Your task to perform on an android device: remove spam from my inbox in the gmail app Image 0: 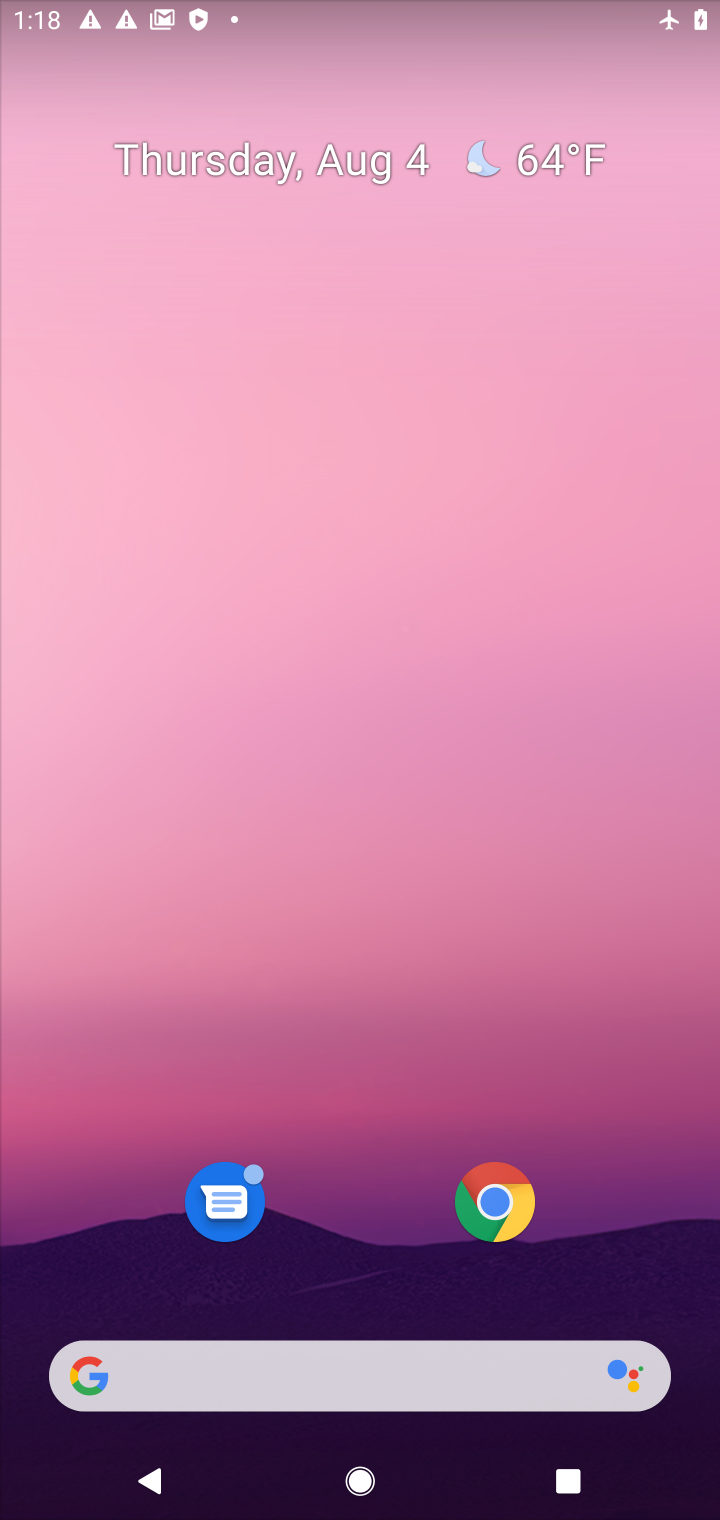
Step 0: drag from (621, 1286) to (663, 9)
Your task to perform on an android device: remove spam from my inbox in the gmail app Image 1: 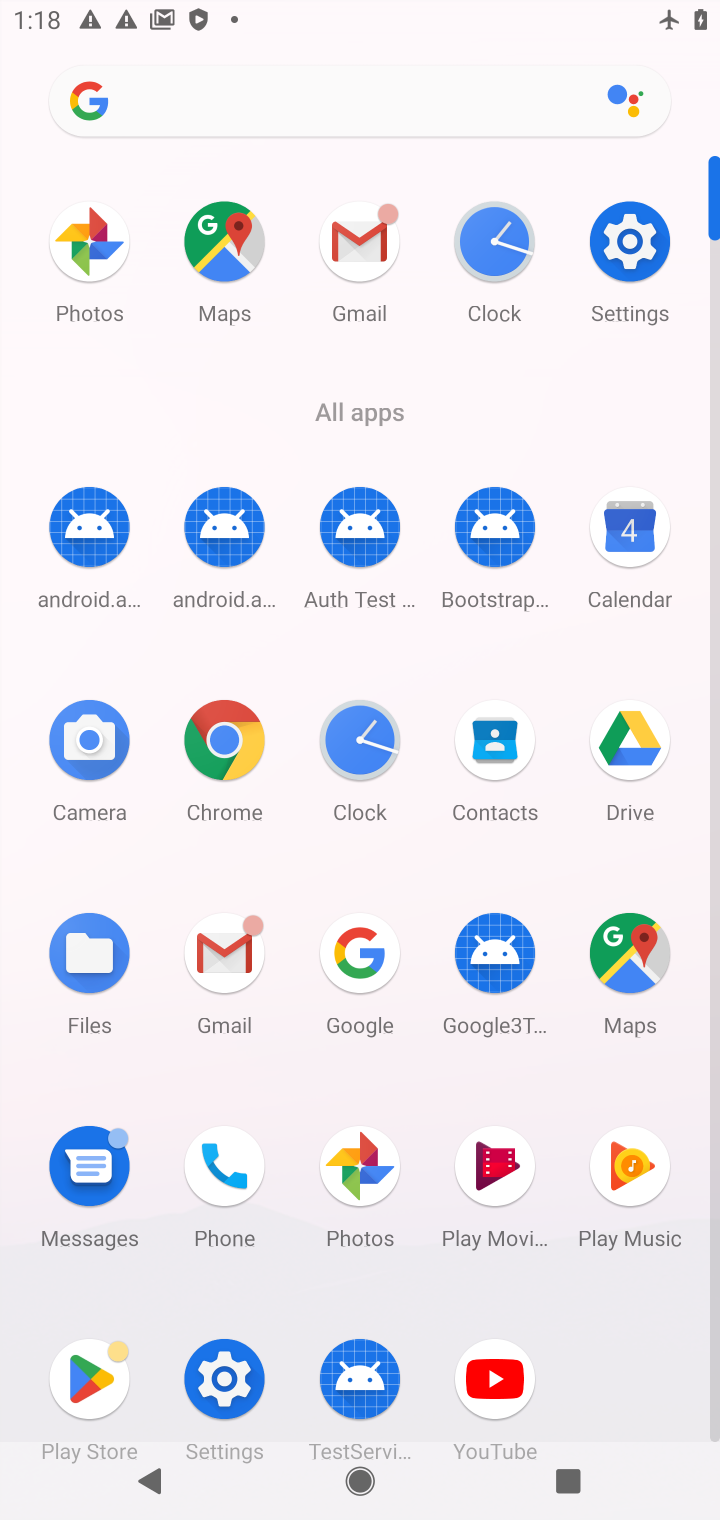
Step 1: click (240, 981)
Your task to perform on an android device: remove spam from my inbox in the gmail app Image 2: 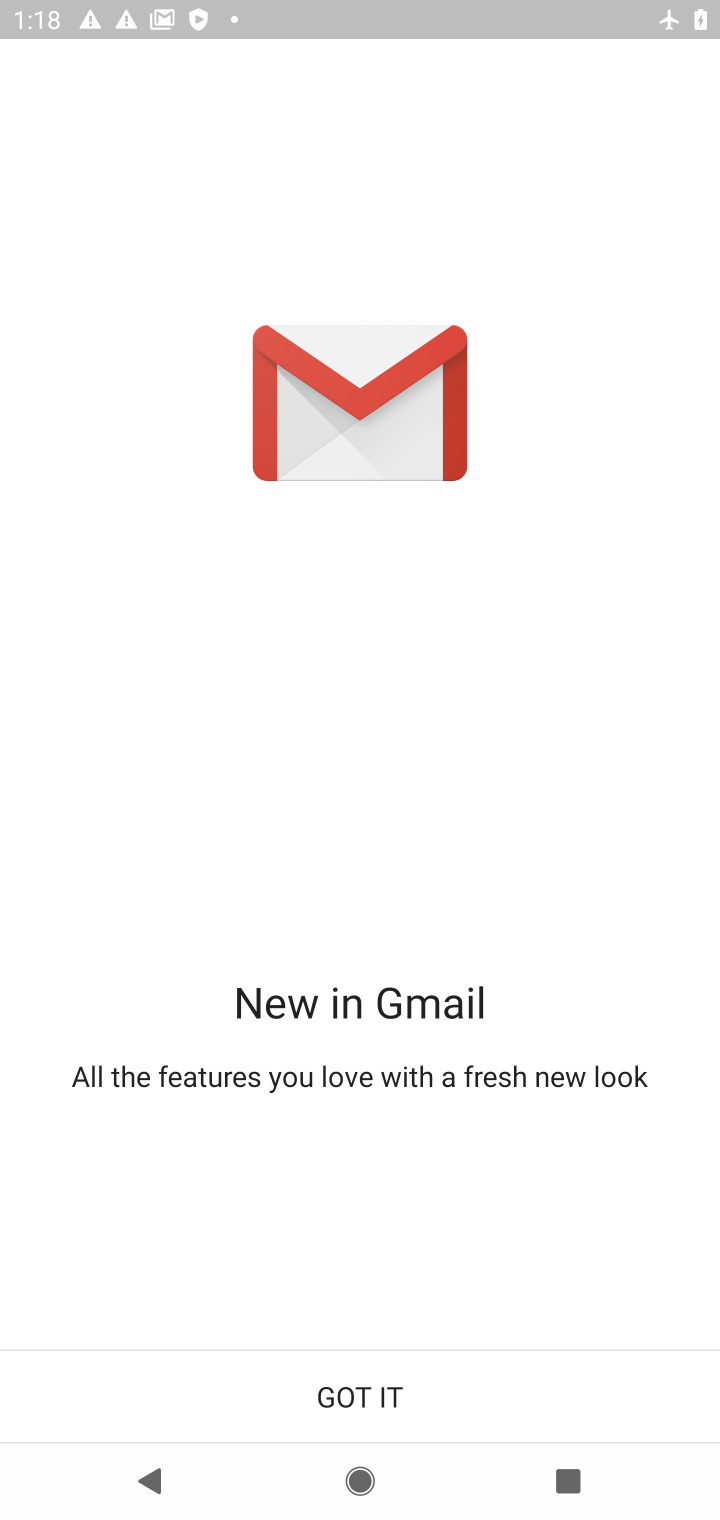
Step 2: click (415, 1373)
Your task to perform on an android device: remove spam from my inbox in the gmail app Image 3: 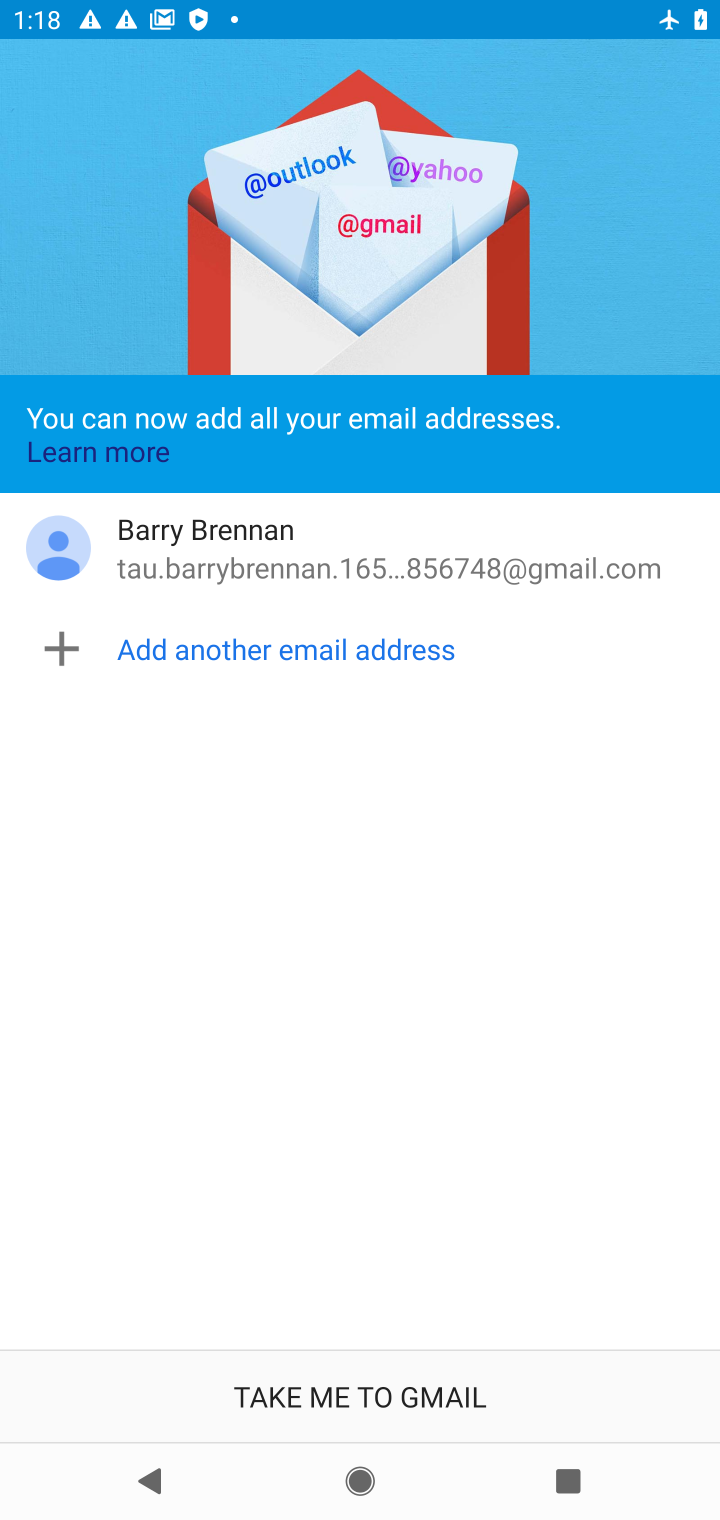
Step 3: click (415, 1373)
Your task to perform on an android device: remove spam from my inbox in the gmail app Image 4: 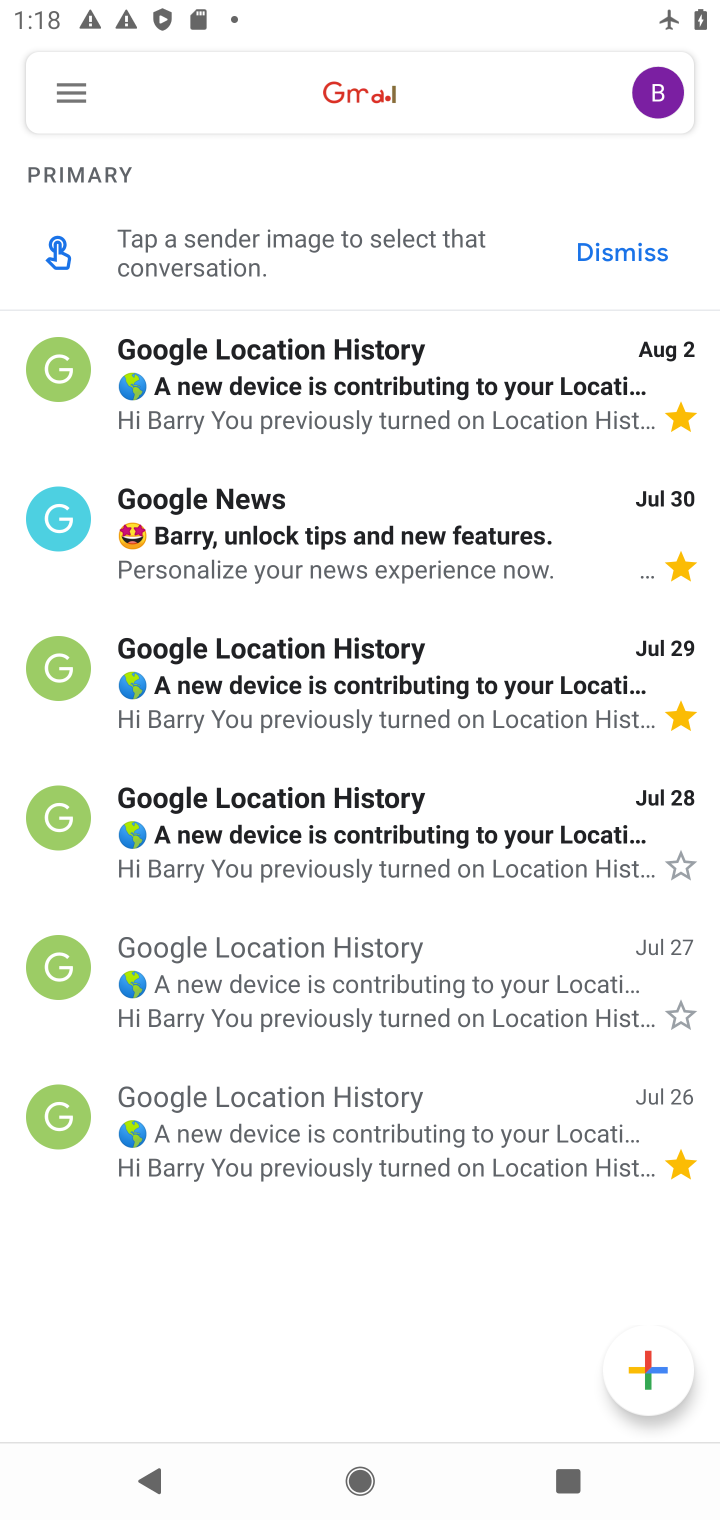
Step 4: click (72, 90)
Your task to perform on an android device: remove spam from my inbox in the gmail app Image 5: 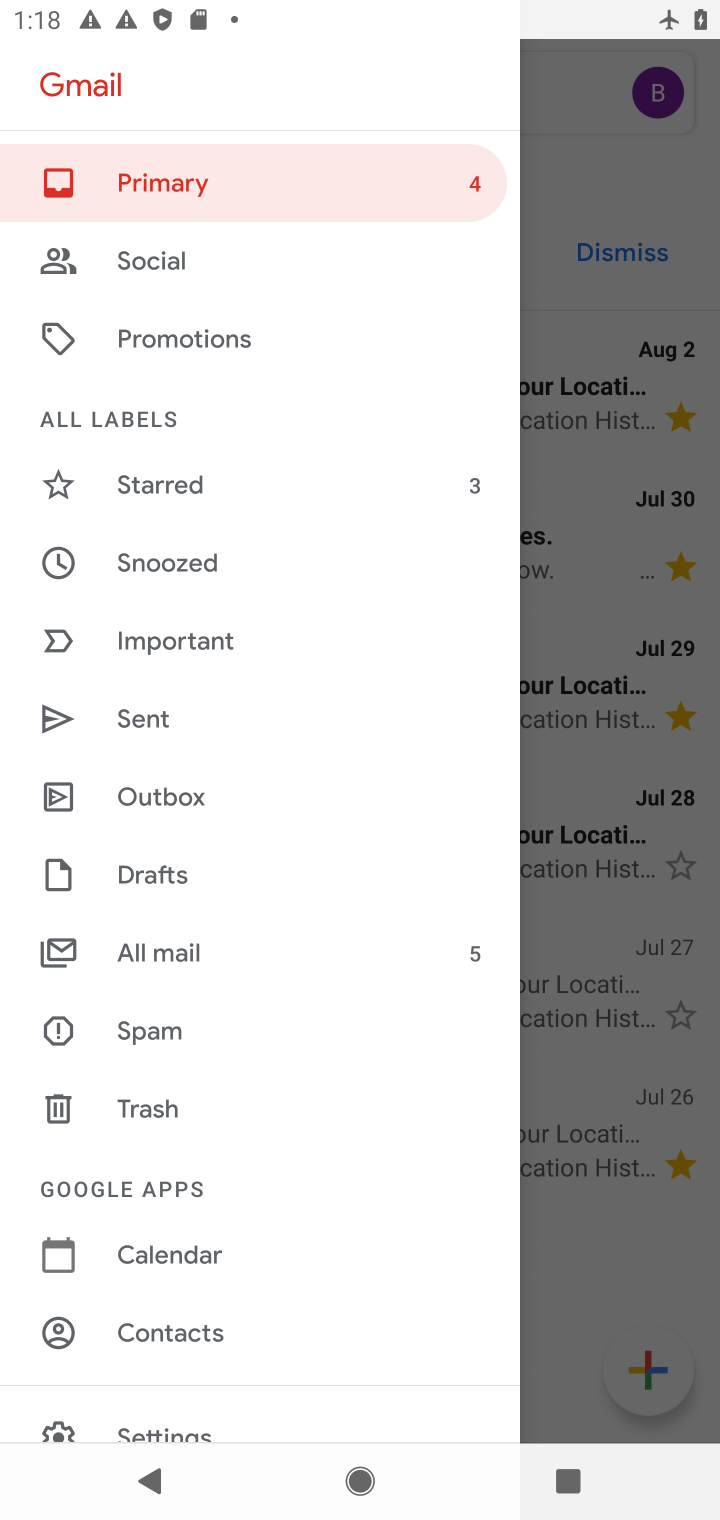
Step 5: click (166, 1029)
Your task to perform on an android device: remove spam from my inbox in the gmail app Image 6: 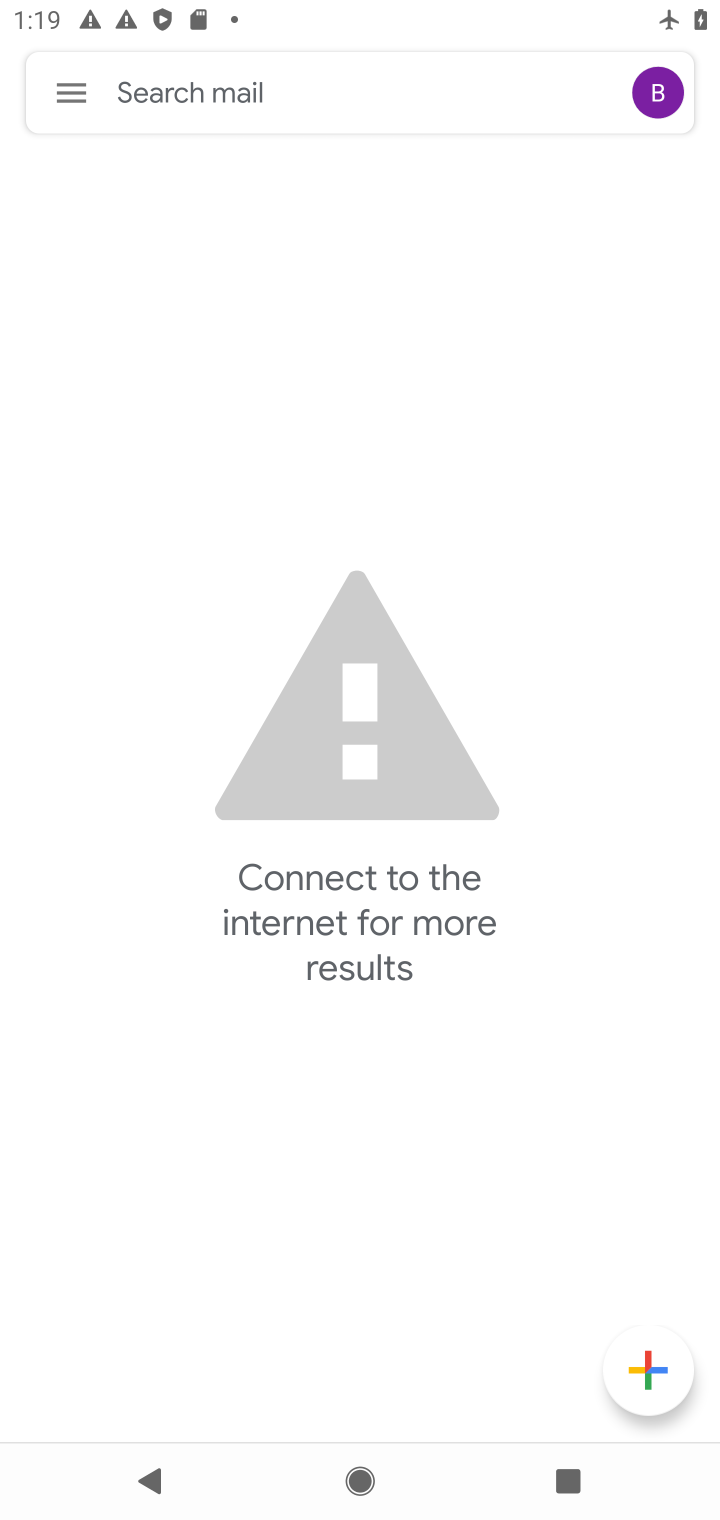
Step 6: task complete